Your task to perform on an android device: refresh tabs in the chrome app Image 0: 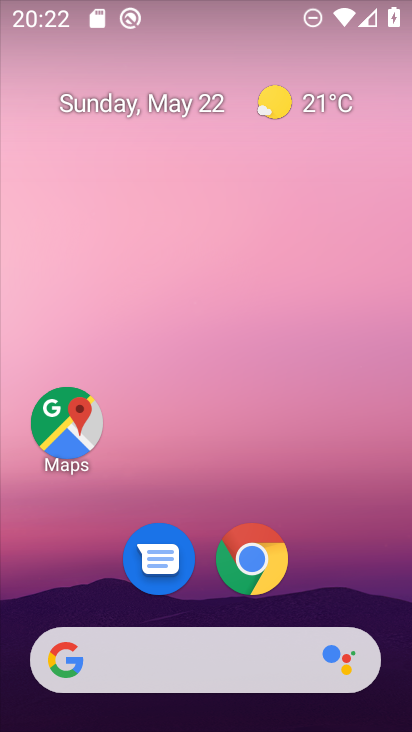
Step 0: drag from (211, 703) to (227, 311)
Your task to perform on an android device: refresh tabs in the chrome app Image 1: 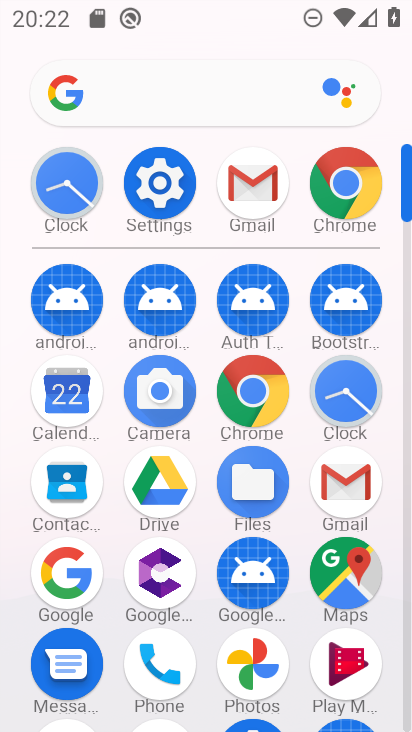
Step 1: click (340, 199)
Your task to perform on an android device: refresh tabs in the chrome app Image 2: 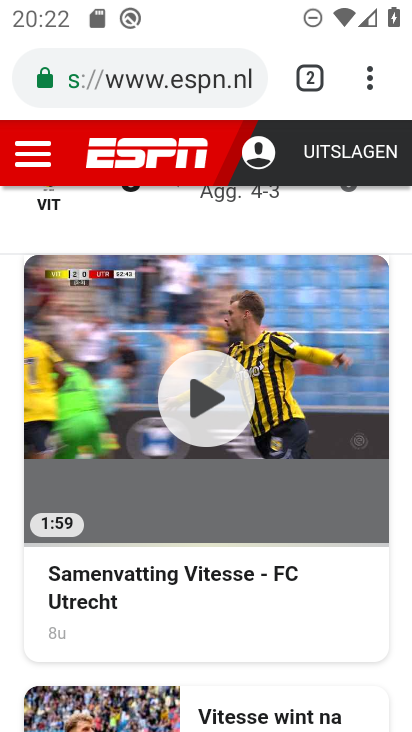
Step 2: click (372, 105)
Your task to perform on an android device: refresh tabs in the chrome app Image 3: 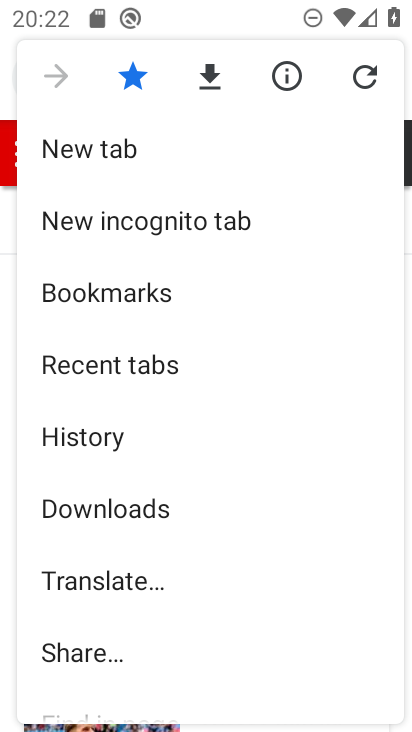
Step 3: click (365, 64)
Your task to perform on an android device: refresh tabs in the chrome app Image 4: 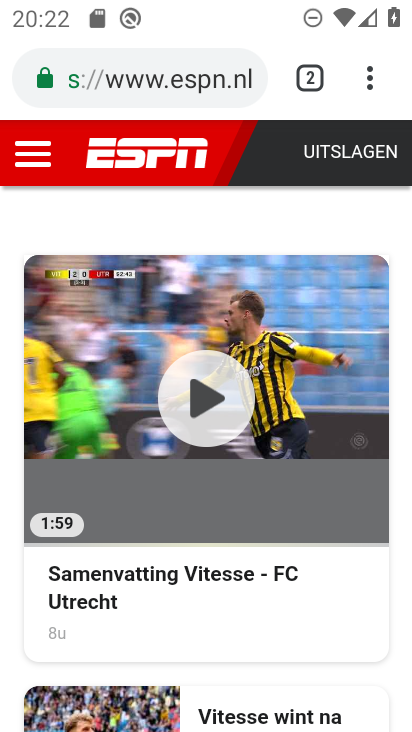
Step 4: task complete